Your task to perform on an android device: Go to Android settings Image 0: 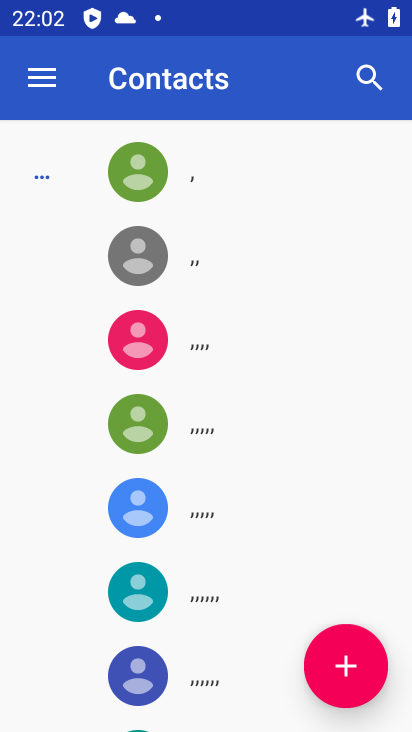
Step 0: press home button
Your task to perform on an android device: Go to Android settings Image 1: 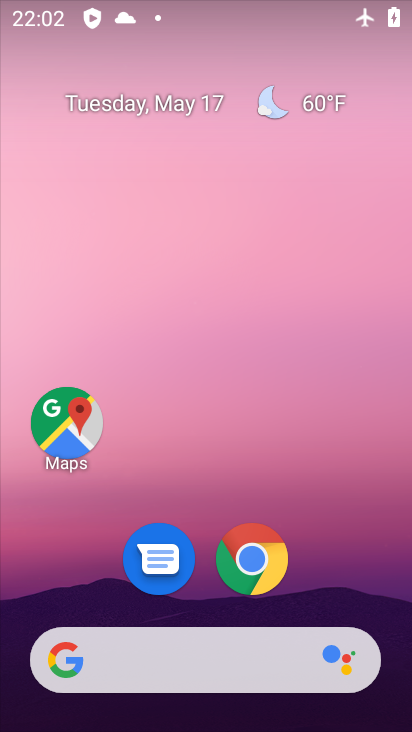
Step 1: drag from (380, 366) to (405, 73)
Your task to perform on an android device: Go to Android settings Image 2: 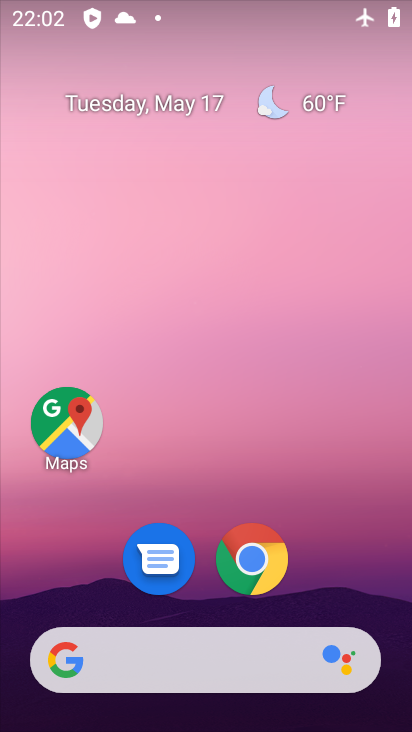
Step 2: drag from (364, 559) to (341, 155)
Your task to perform on an android device: Go to Android settings Image 3: 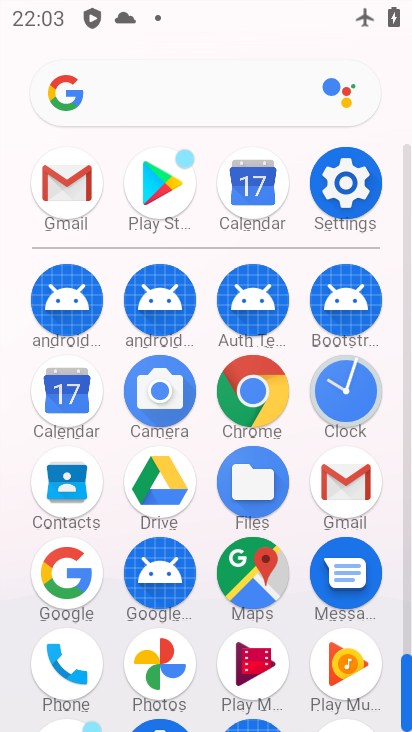
Step 3: click (340, 181)
Your task to perform on an android device: Go to Android settings Image 4: 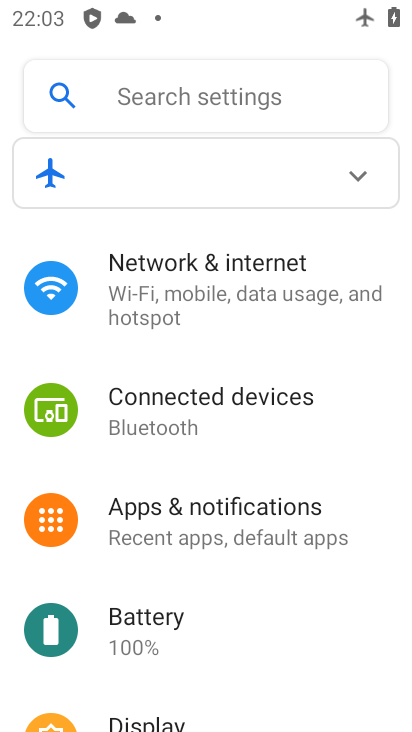
Step 4: drag from (229, 673) to (353, 281)
Your task to perform on an android device: Go to Android settings Image 5: 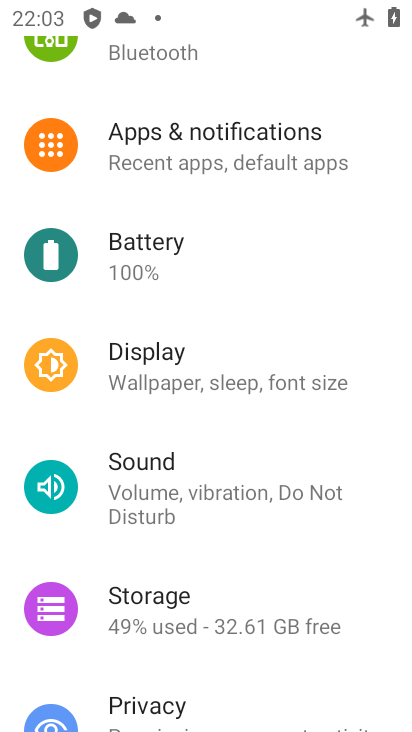
Step 5: drag from (262, 535) to (379, 98)
Your task to perform on an android device: Go to Android settings Image 6: 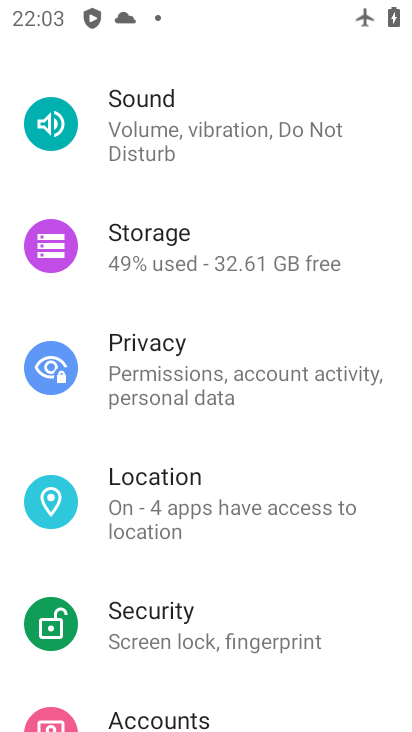
Step 6: drag from (154, 639) to (386, 191)
Your task to perform on an android device: Go to Android settings Image 7: 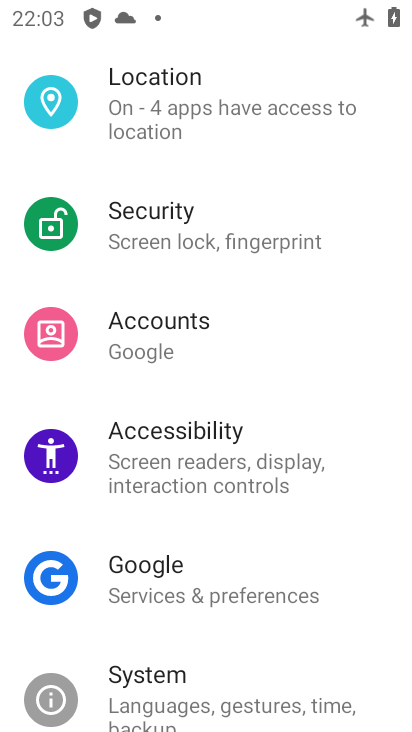
Step 7: click (410, 172)
Your task to perform on an android device: Go to Android settings Image 8: 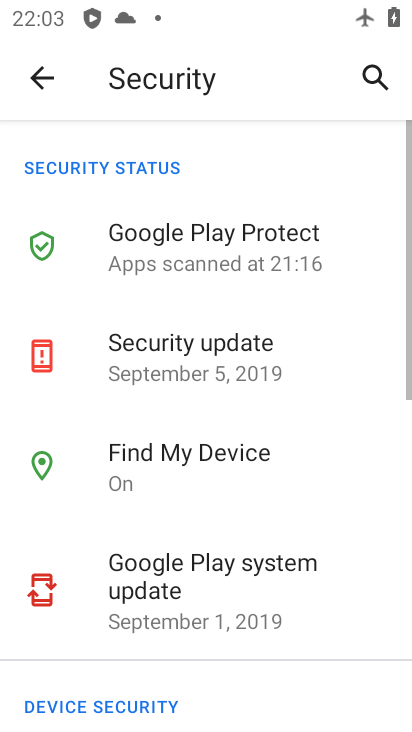
Step 8: drag from (205, 597) to (406, 182)
Your task to perform on an android device: Go to Android settings Image 9: 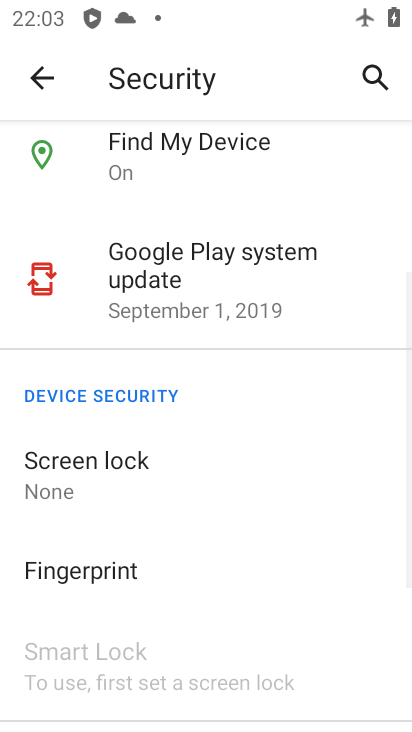
Step 9: drag from (274, 400) to (337, 150)
Your task to perform on an android device: Go to Android settings Image 10: 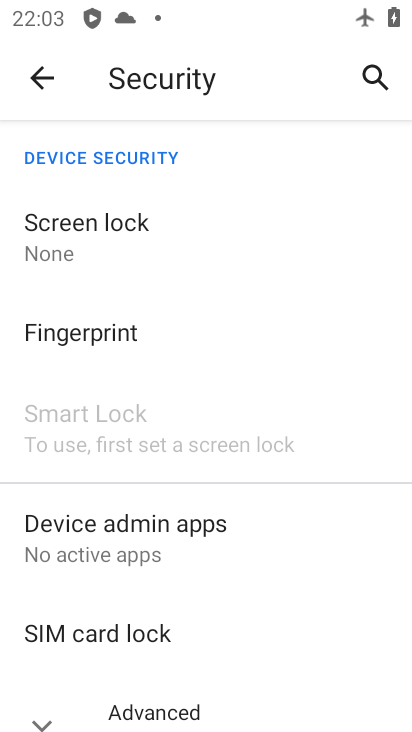
Step 10: click (53, 85)
Your task to perform on an android device: Go to Android settings Image 11: 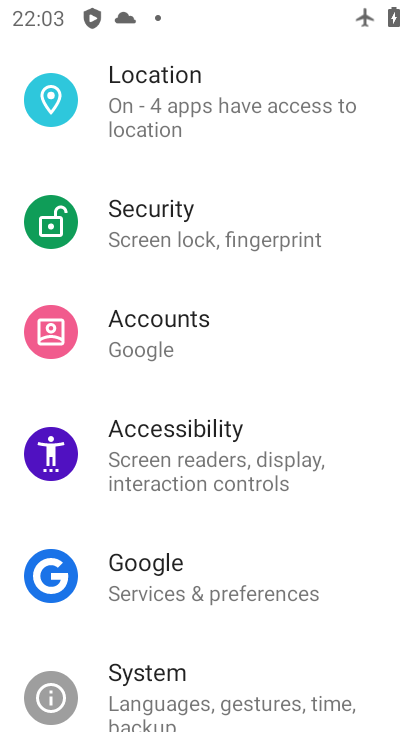
Step 11: drag from (249, 685) to (408, 176)
Your task to perform on an android device: Go to Android settings Image 12: 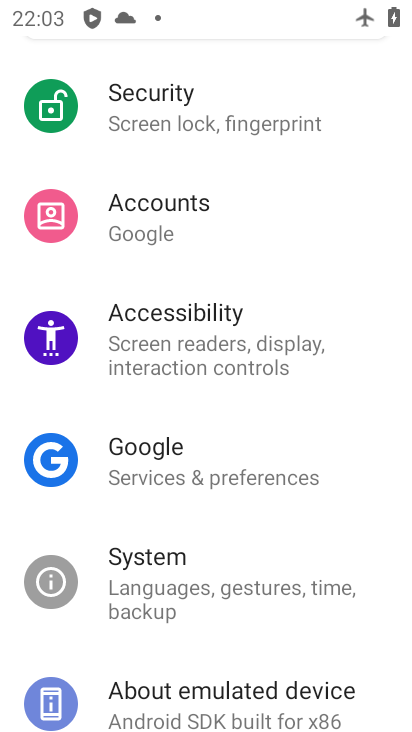
Step 12: click (205, 654)
Your task to perform on an android device: Go to Android settings Image 13: 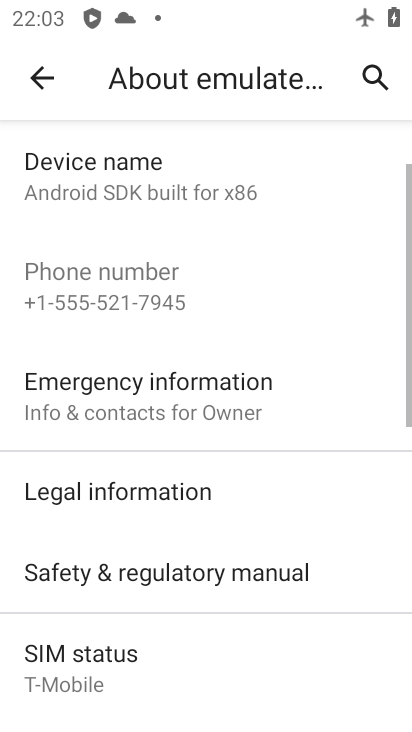
Step 13: click (49, 72)
Your task to perform on an android device: Go to Android settings Image 14: 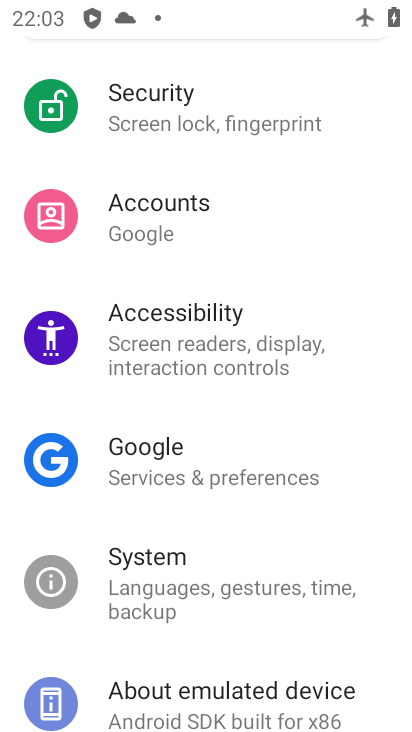
Step 14: task complete